Your task to perform on an android device: toggle location history Image 0: 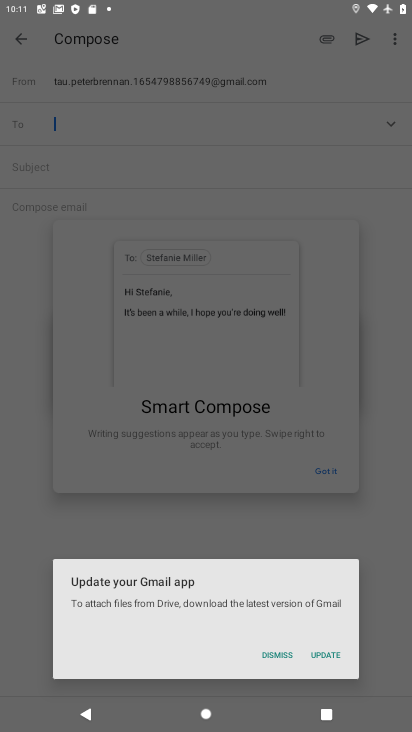
Step 0: press home button
Your task to perform on an android device: toggle location history Image 1: 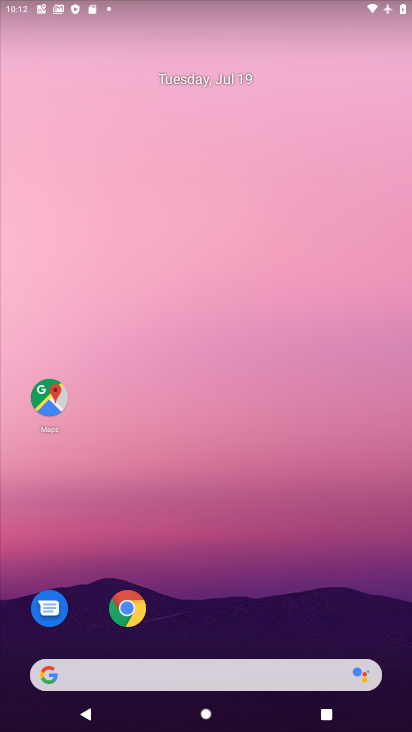
Step 1: drag from (199, 541) to (244, 80)
Your task to perform on an android device: toggle location history Image 2: 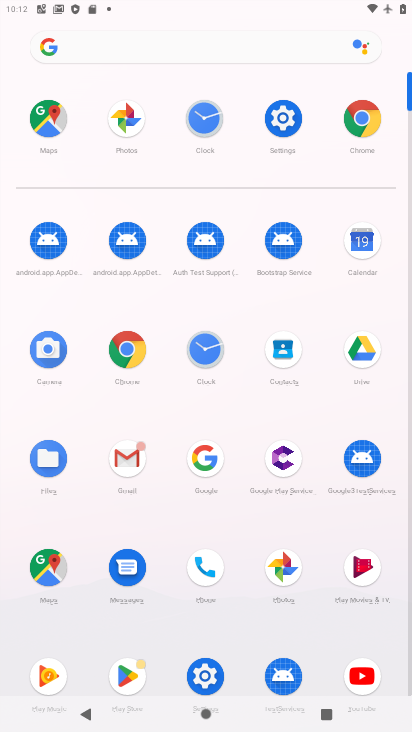
Step 2: click (278, 118)
Your task to perform on an android device: toggle location history Image 3: 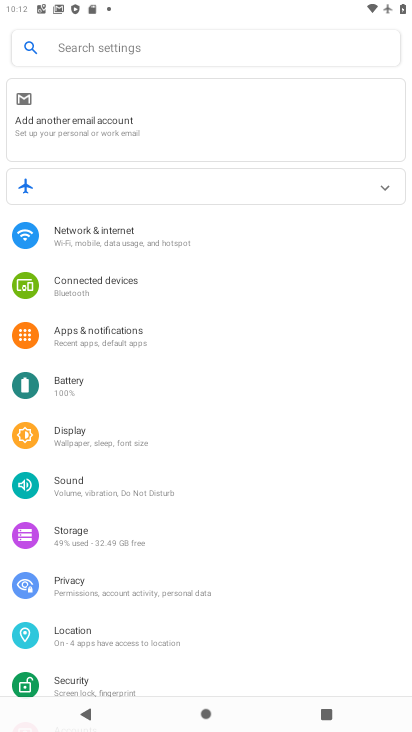
Step 3: drag from (165, 599) to (253, 263)
Your task to perform on an android device: toggle location history Image 4: 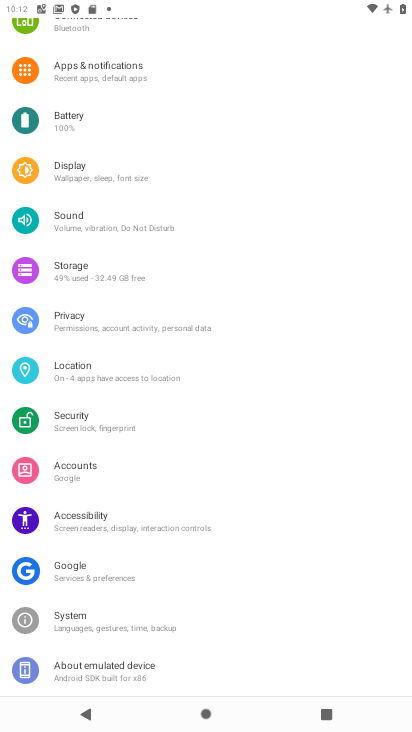
Step 4: click (118, 369)
Your task to perform on an android device: toggle location history Image 5: 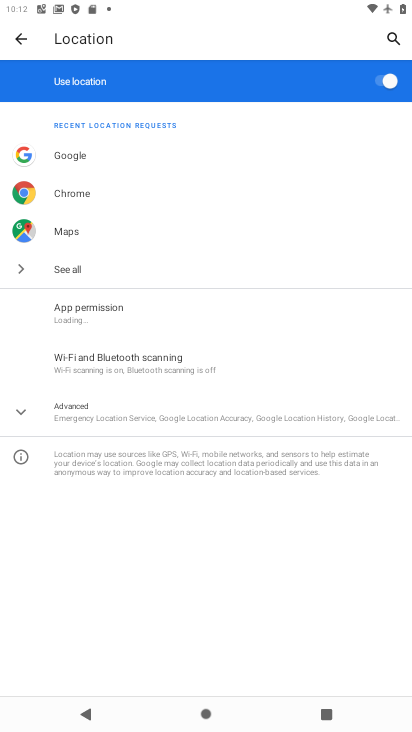
Step 5: click (95, 413)
Your task to perform on an android device: toggle location history Image 6: 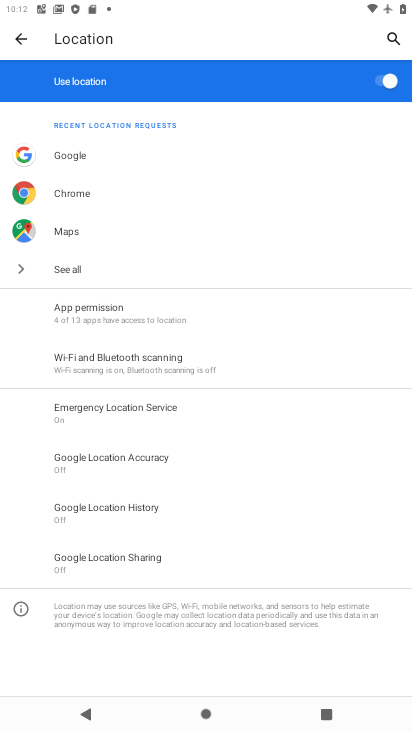
Step 6: click (125, 508)
Your task to perform on an android device: toggle location history Image 7: 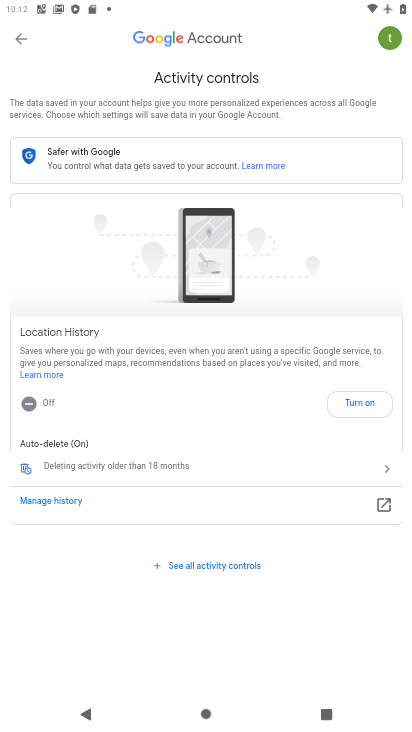
Step 7: click (355, 403)
Your task to perform on an android device: toggle location history Image 8: 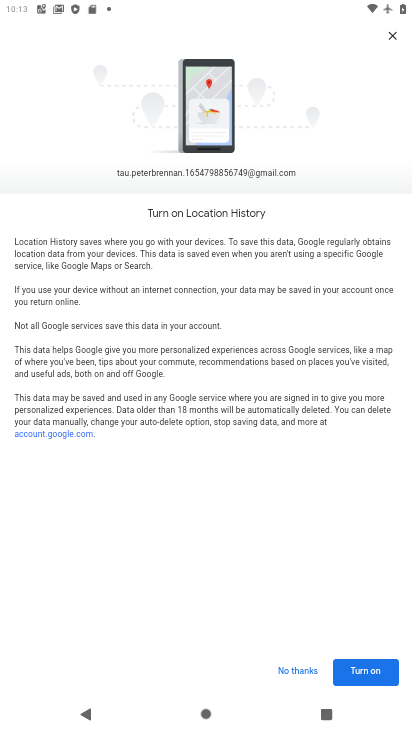
Step 8: click (385, 676)
Your task to perform on an android device: toggle location history Image 9: 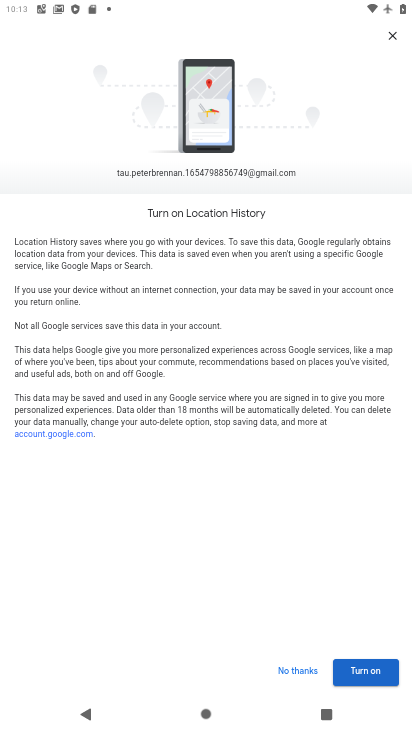
Step 9: click (376, 670)
Your task to perform on an android device: toggle location history Image 10: 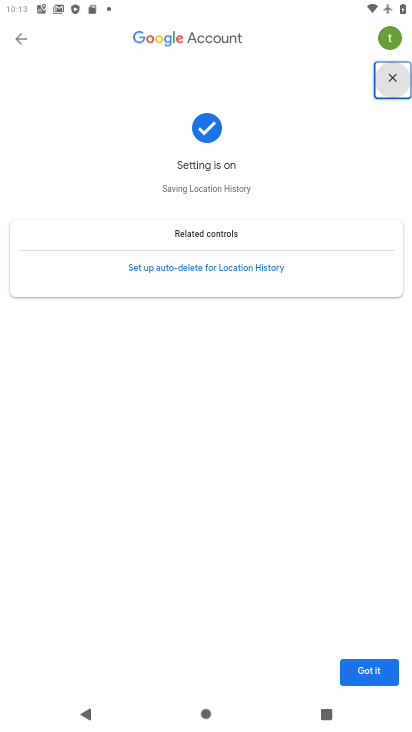
Step 10: task complete